Your task to perform on an android device: Open sound settings Image 0: 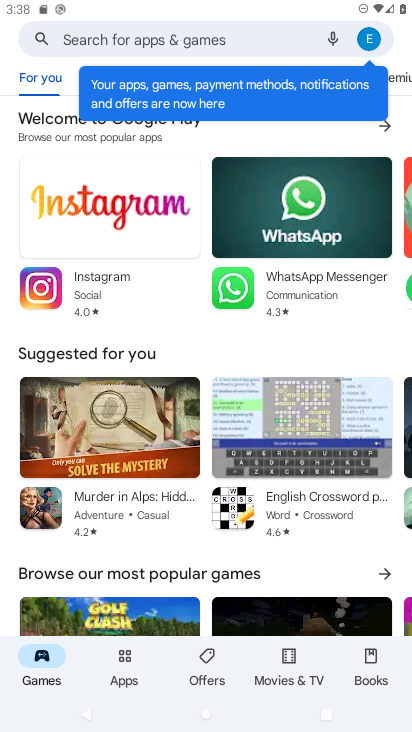
Step 0: press home button
Your task to perform on an android device: Open sound settings Image 1: 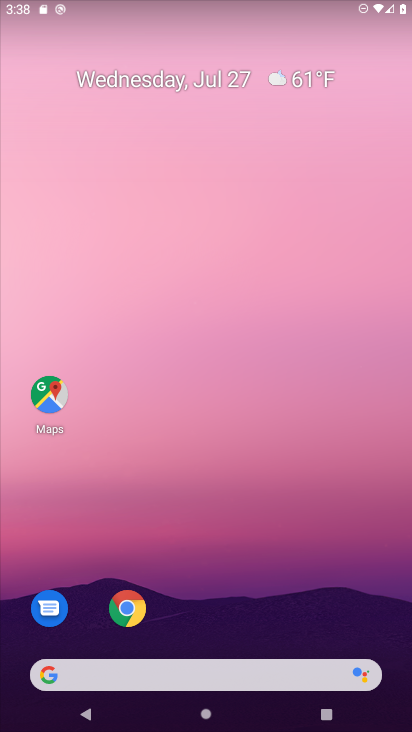
Step 1: drag from (223, 686) to (215, 43)
Your task to perform on an android device: Open sound settings Image 2: 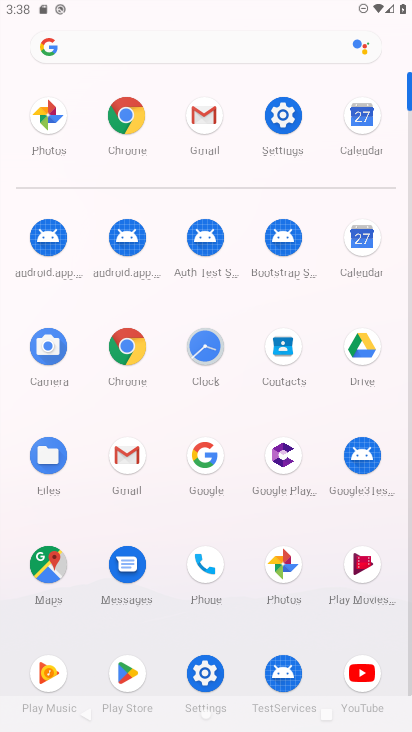
Step 2: click (282, 117)
Your task to perform on an android device: Open sound settings Image 3: 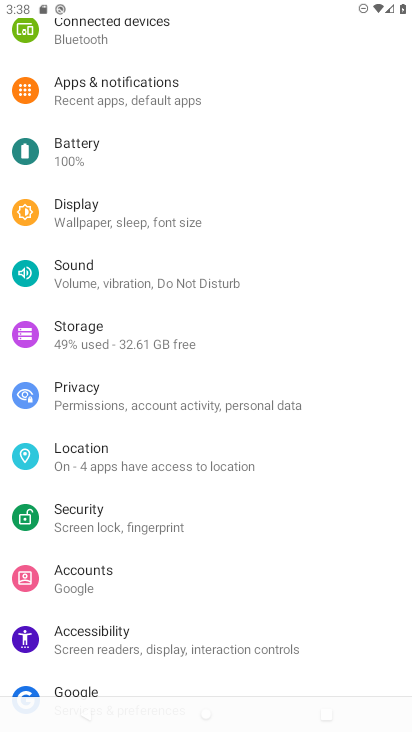
Step 3: click (73, 267)
Your task to perform on an android device: Open sound settings Image 4: 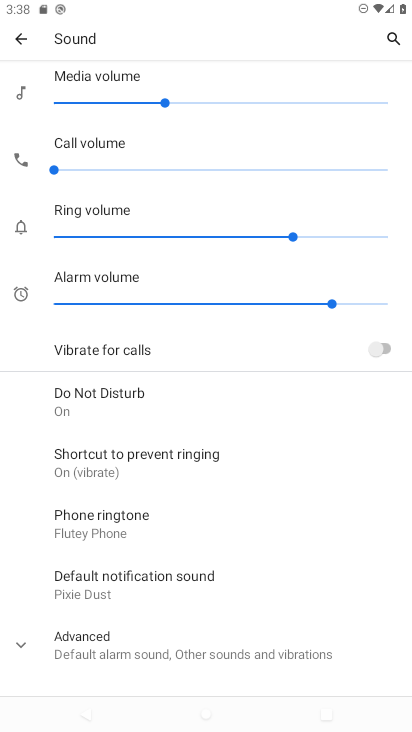
Step 4: task complete